Your task to perform on an android device: toggle location history Image 0: 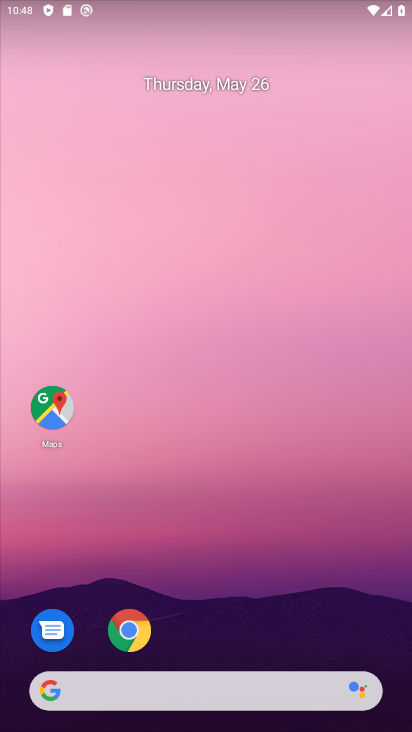
Step 0: drag from (233, 629) to (238, 167)
Your task to perform on an android device: toggle location history Image 1: 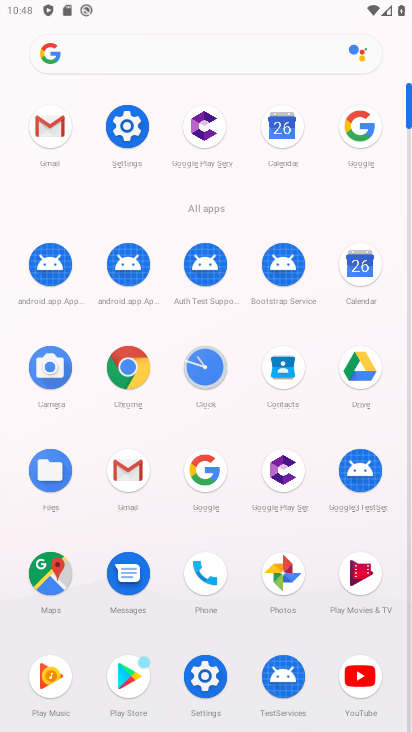
Step 1: click (206, 674)
Your task to perform on an android device: toggle location history Image 2: 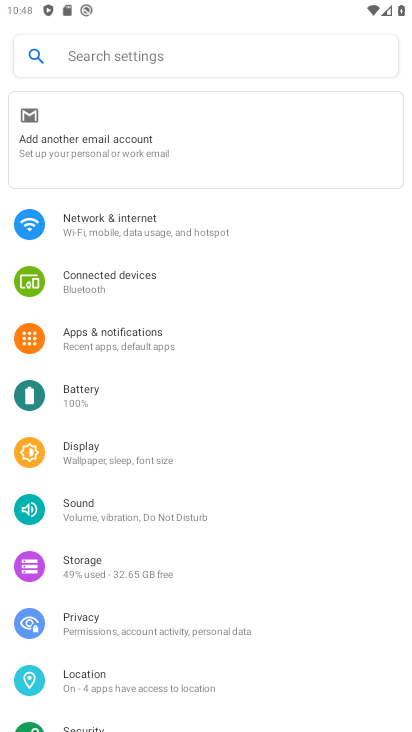
Step 2: click (95, 681)
Your task to perform on an android device: toggle location history Image 3: 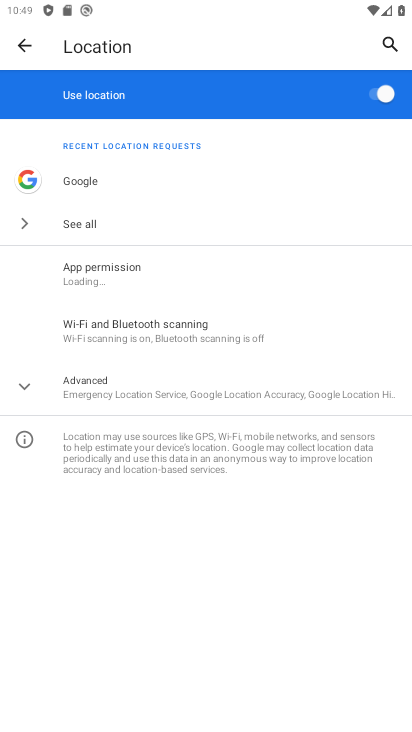
Step 3: click (126, 384)
Your task to perform on an android device: toggle location history Image 4: 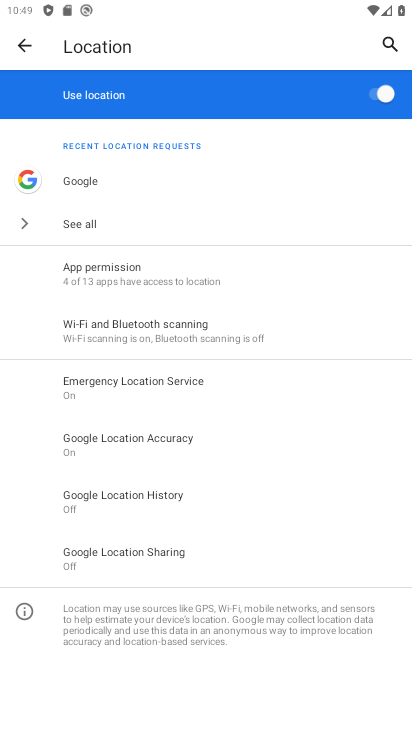
Step 4: click (121, 487)
Your task to perform on an android device: toggle location history Image 5: 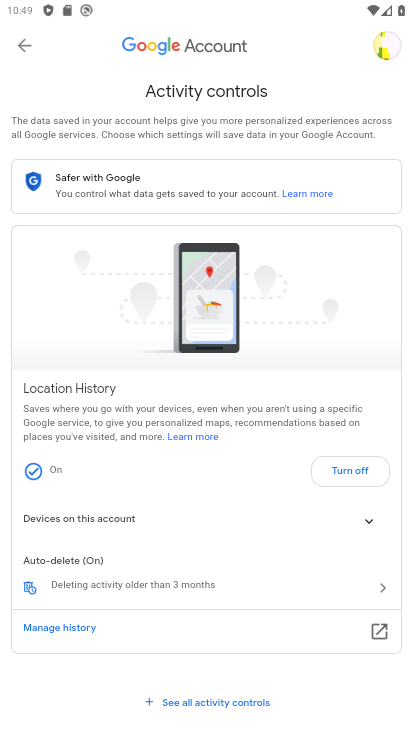
Step 5: click (346, 466)
Your task to perform on an android device: toggle location history Image 6: 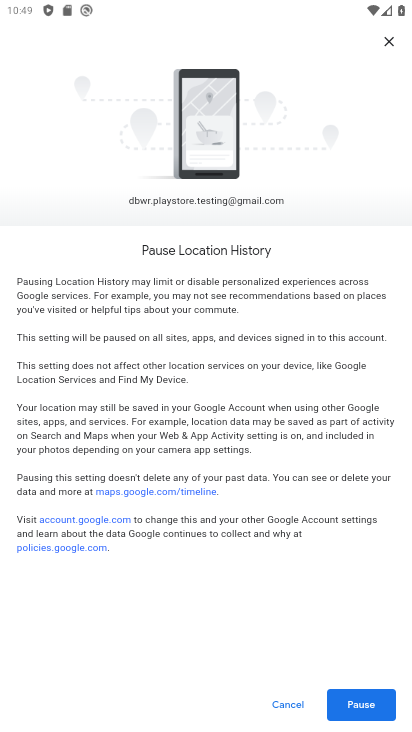
Step 6: click (357, 704)
Your task to perform on an android device: toggle location history Image 7: 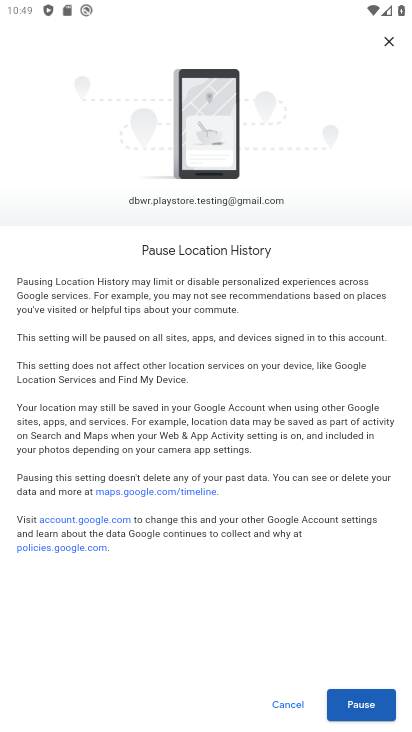
Step 7: click (384, 700)
Your task to perform on an android device: toggle location history Image 8: 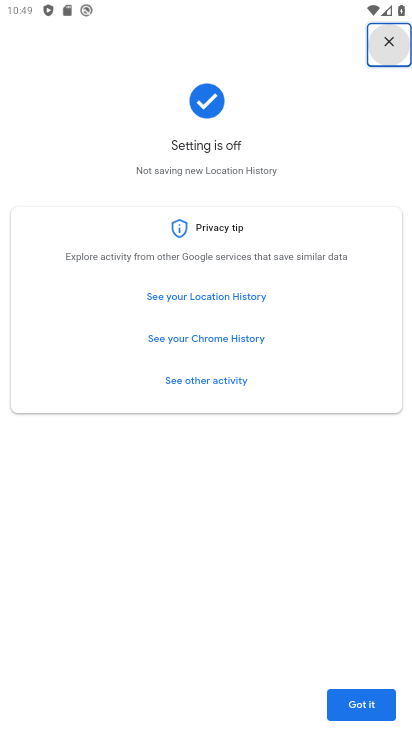
Step 8: click (355, 712)
Your task to perform on an android device: toggle location history Image 9: 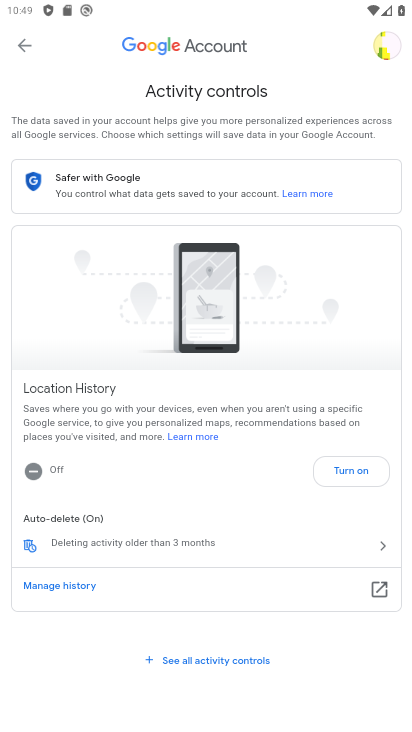
Step 9: task complete